Your task to perform on an android device: Search for vegetarian restaurants on Maps Image 0: 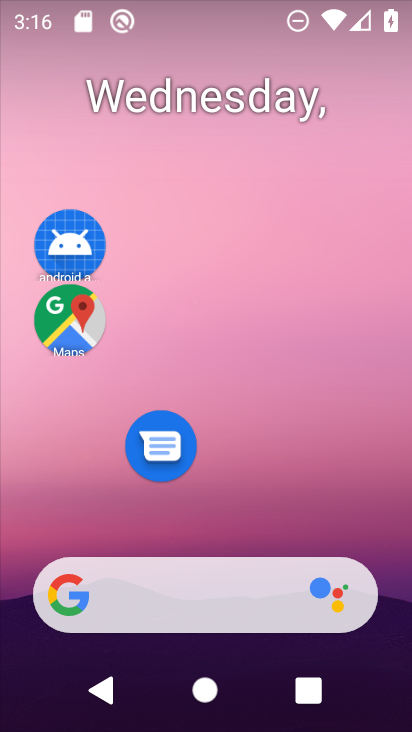
Step 0: click (58, 335)
Your task to perform on an android device: Search for vegetarian restaurants on Maps Image 1: 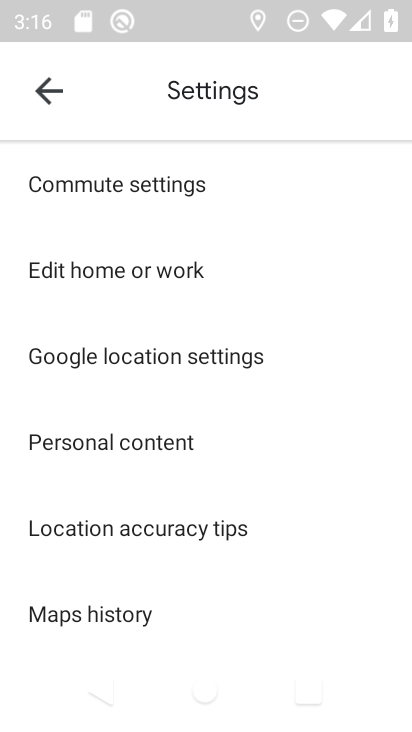
Step 1: click (58, 126)
Your task to perform on an android device: Search for vegetarian restaurants on Maps Image 2: 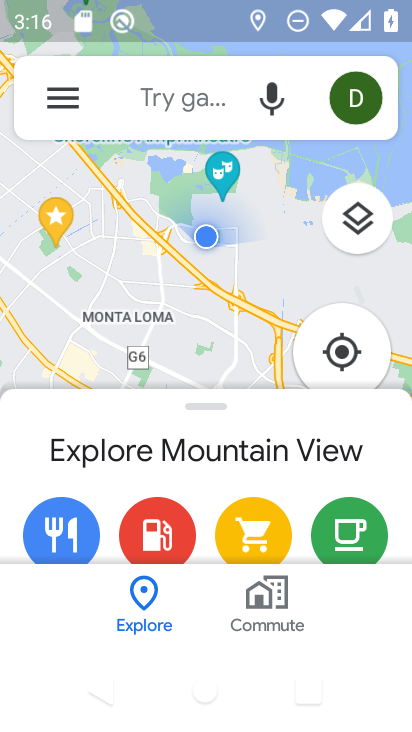
Step 2: click (151, 109)
Your task to perform on an android device: Search for vegetarian restaurants on Maps Image 3: 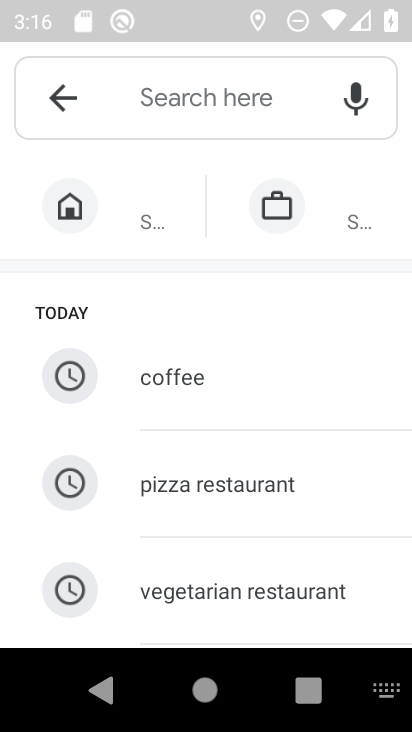
Step 3: click (251, 589)
Your task to perform on an android device: Search for vegetarian restaurants on Maps Image 4: 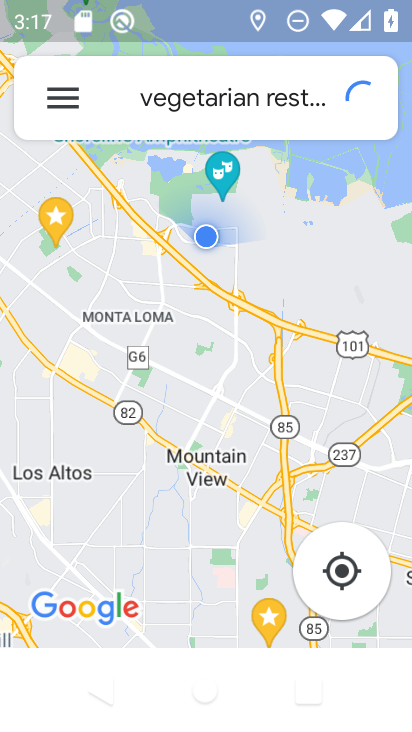
Step 4: task complete